Your task to perform on an android device: Go to eBay Image 0: 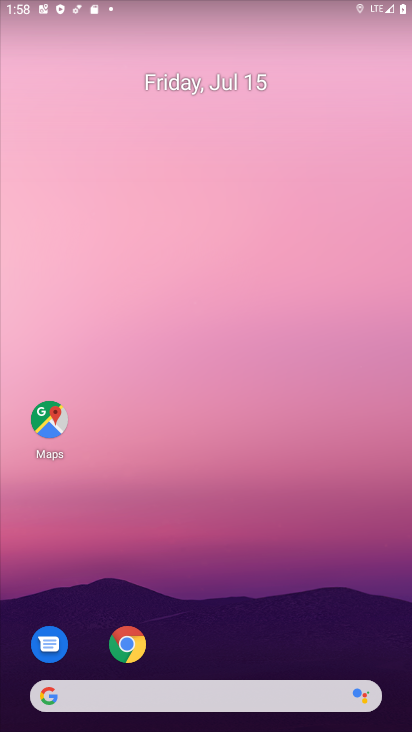
Step 0: drag from (360, 647) to (214, 74)
Your task to perform on an android device: Go to eBay Image 1: 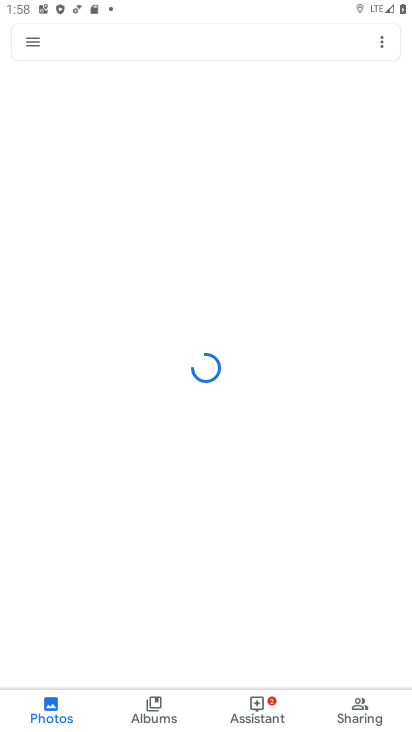
Step 1: press home button
Your task to perform on an android device: Go to eBay Image 2: 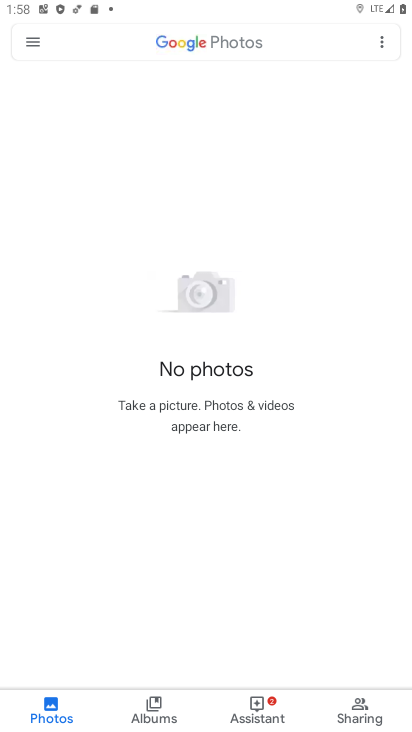
Step 2: drag from (380, 650) to (250, 24)
Your task to perform on an android device: Go to eBay Image 3: 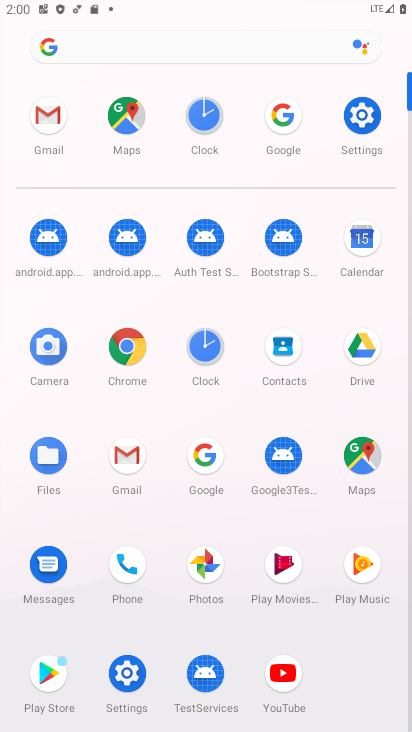
Step 3: click (195, 448)
Your task to perform on an android device: Go to eBay Image 4: 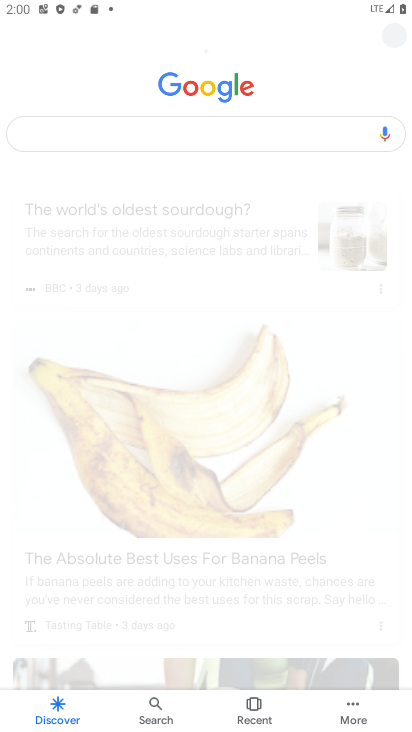
Step 4: click (155, 136)
Your task to perform on an android device: Go to eBay Image 5: 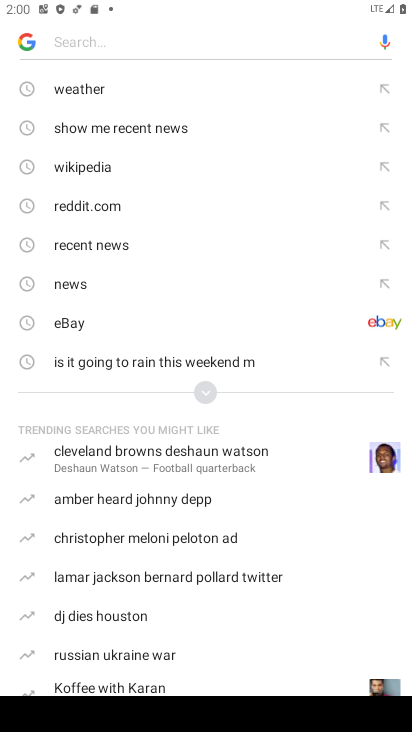
Step 5: click (74, 334)
Your task to perform on an android device: Go to eBay Image 6: 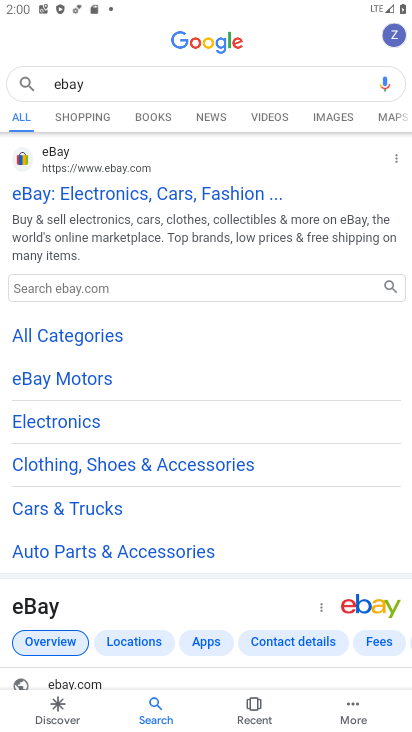
Step 6: task complete